Your task to perform on an android device: Open Google Chrome and open the bookmarks view Image 0: 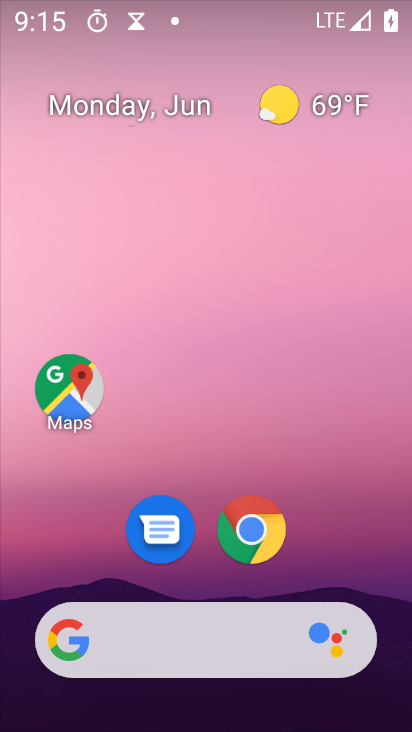
Step 0: click (249, 531)
Your task to perform on an android device: Open Google Chrome and open the bookmarks view Image 1: 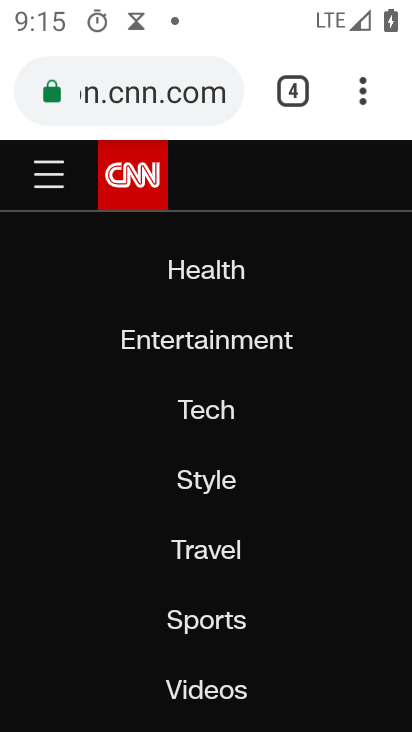
Step 1: click (366, 103)
Your task to perform on an android device: Open Google Chrome and open the bookmarks view Image 2: 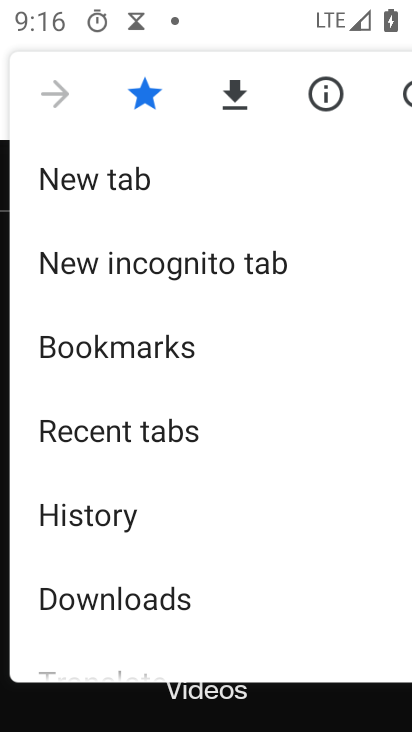
Step 2: click (163, 342)
Your task to perform on an android device: Open Google Chrome and open the bookmarks view Image 3: 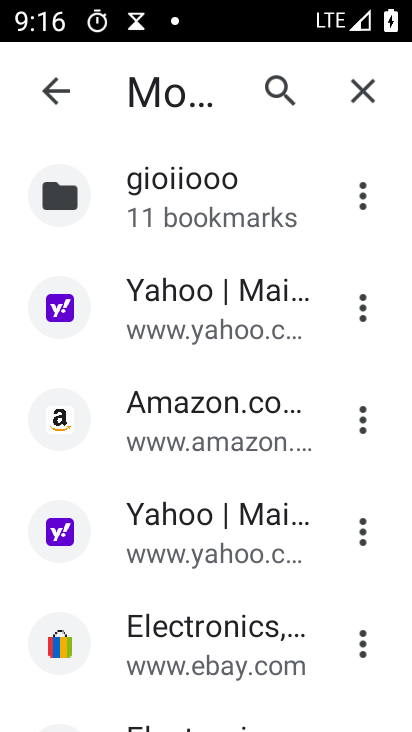
Step 3: task complete